Your task to perform on an android device: Open Chrome and go to settings Image 0: 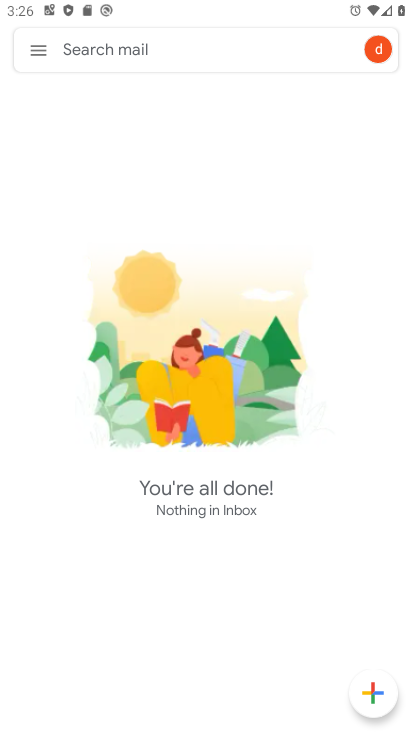
Step 0: press home button
Your task to perform on an android device: Open Chrome and go to settings Image 1: 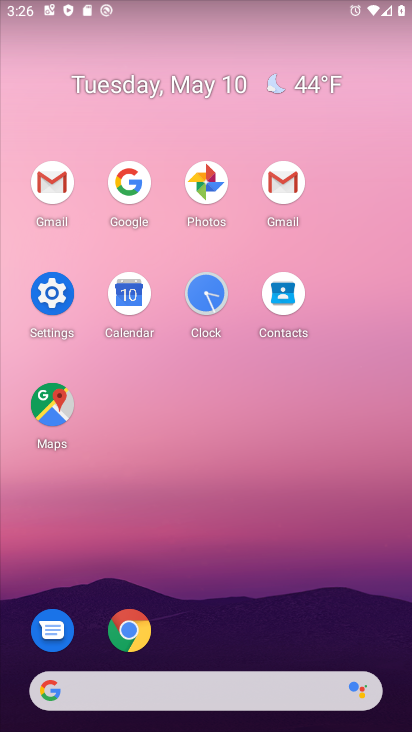
Step 1: click (137, 628)
Your task to perform on an android device: Open Chrome and go to settings Image 2: 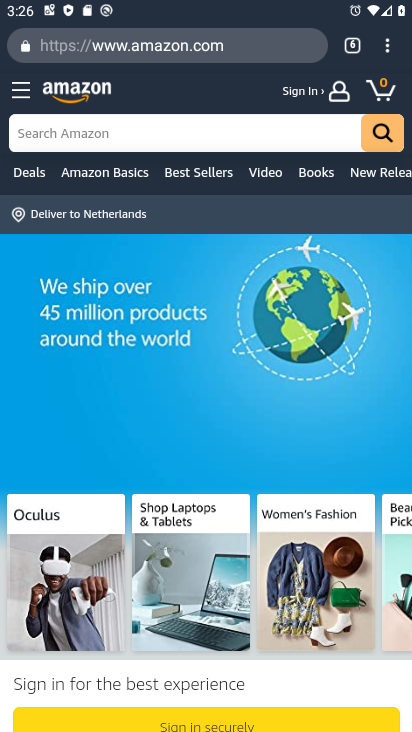
Step 2: click (394, 48)
Your task to perform on an android device: Open Chrome and go to settings Image 3: 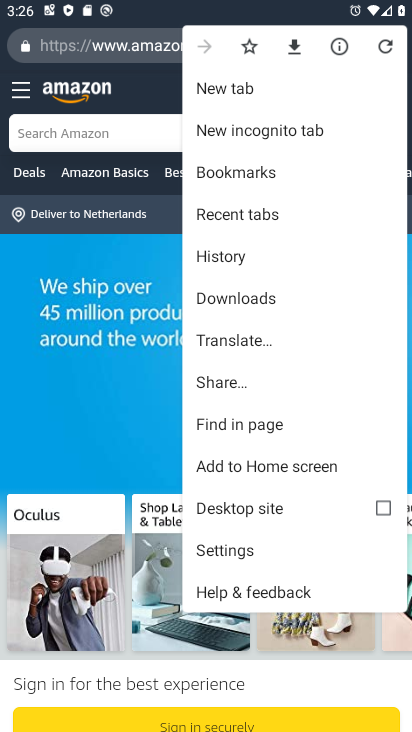
Step 3: click (228, 548)
Your task to perform on an android device: Open Chrome and go to settings Image 4: 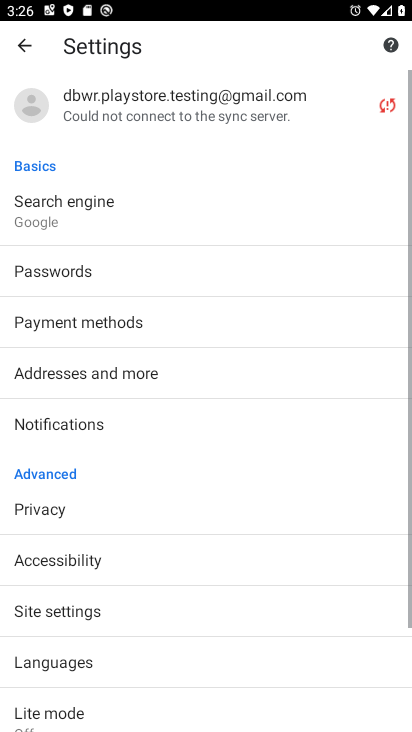
Step 4: task complete